Your task to perform on an android device: Open Google Chrome and open the bookmarks view Image 0: 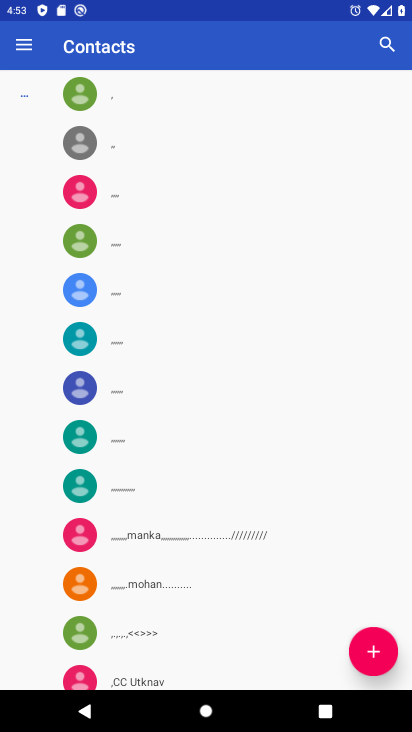
Step 0: press home button
Your task to perform on an android device: Open Google Chrome and open the bookmarks view Image 1: 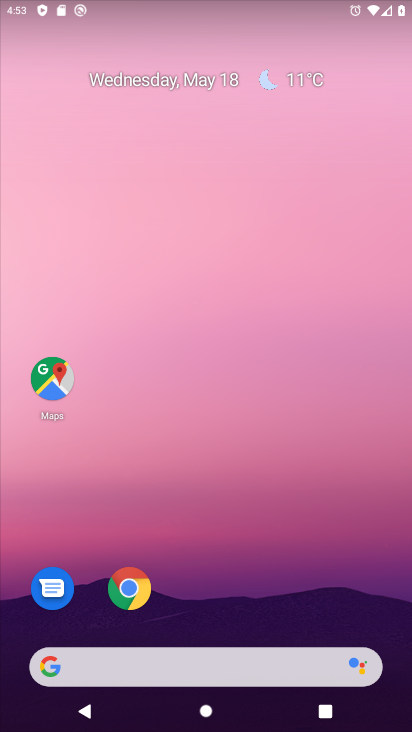
Step 1: click (136, 590)
Your task to perform on an android device: Open Google Chrome and open the bookmarks view Image 2: 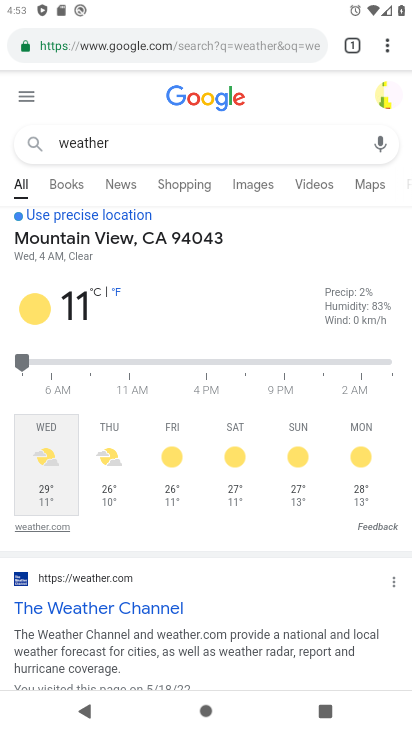
Step 2: task complete